Your task to perform on an android device: turn on data saver in the chrome app Image 0: 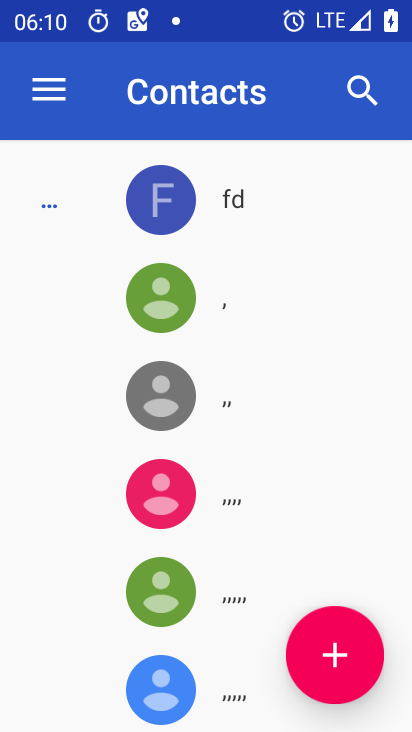
Step 0: press home button
Your task to perform on an android device: turn on data saver in the chrome app Image 1: 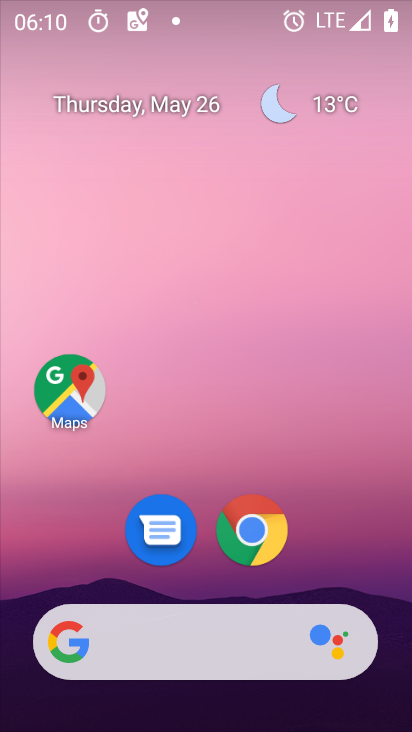
Step 1: drag from (321, 585) to (344, 101)
Your task to perform on an android device: turn on data saver in the chrome app Image 2: 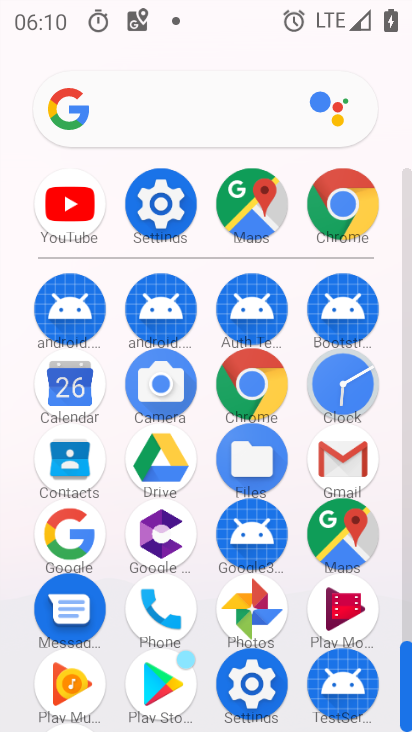
Step 2: click (269, 388)
Your task to perform on an android device: turn on data saver in the chrome app Image 3: 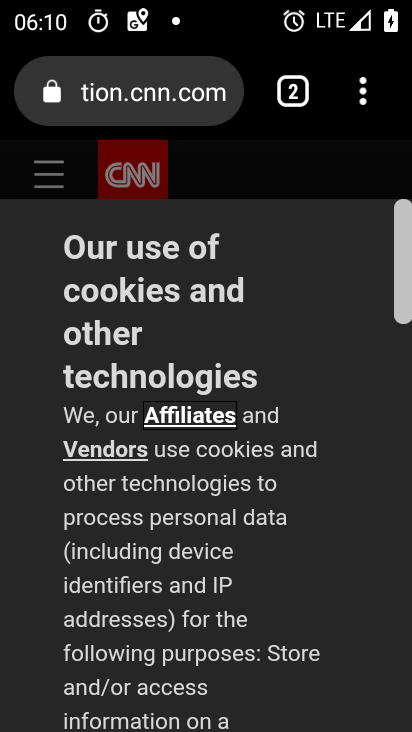
Step 3: drag from (366, 98) to (271, 562)
Your task to perform on an android device: turn on data saver in the chrome app Image 4: 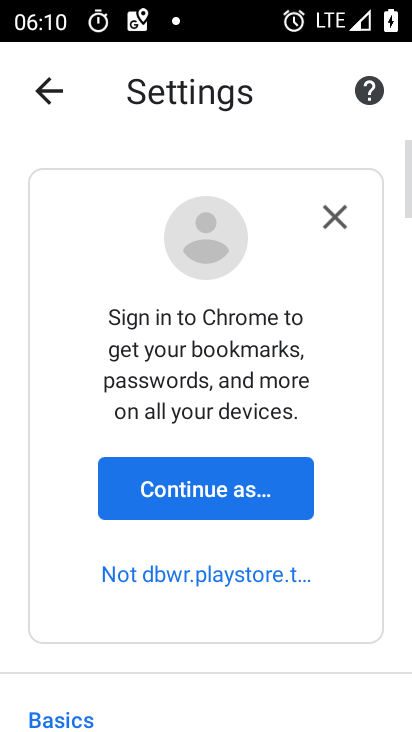
Step 4: drag from (320, 657) to (364, 90)
Your task to perform on an android device: turn on data saver in the chrome app Image 5: 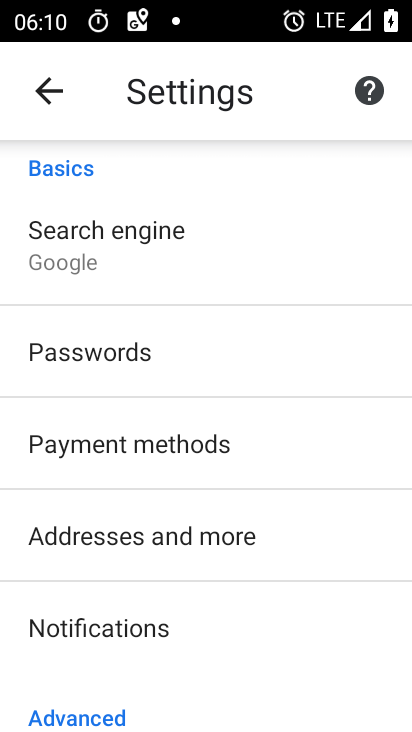
Step 5: drag from (254, 702) to (290, 58)
Your task to perform on an android device: turn on data saver in the chrome app Image 6: 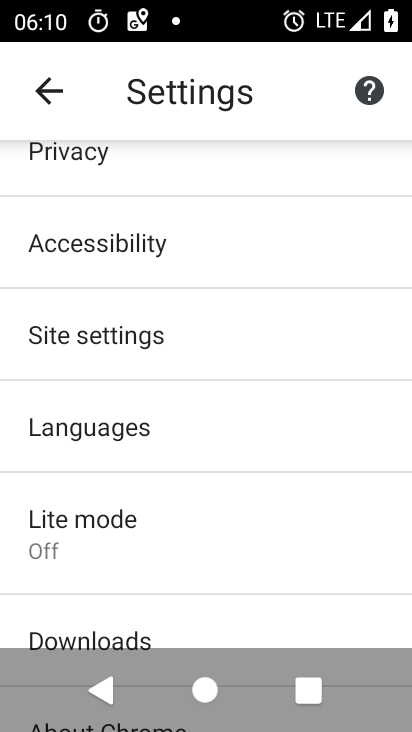
Step 6: click (187, 520)
Your task to perform on an android device: turn on data saver in the chrome app Image 7: 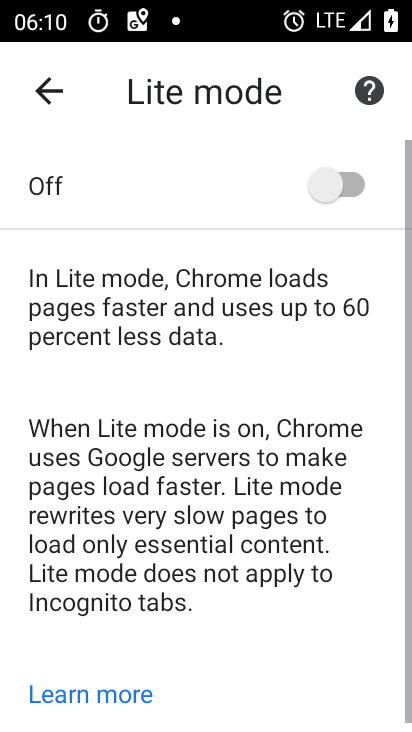
Step 7: click (350, 195)
Your task to perform on an android device: turn on data saver in the chrome app Image 8: 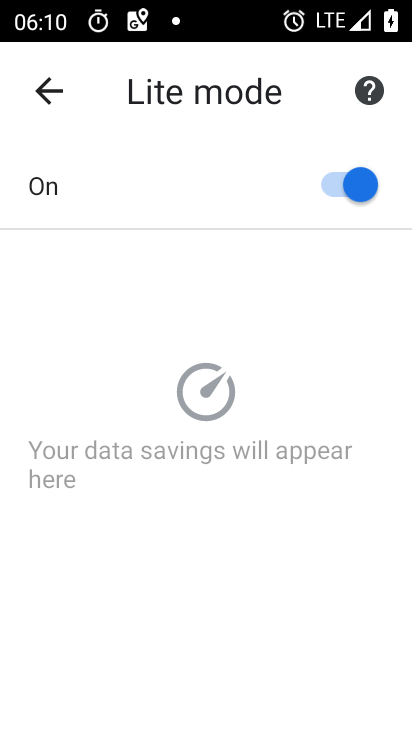
Step 8: task complete